Your task to perform on an android device: Open Google Chrome Image 0: 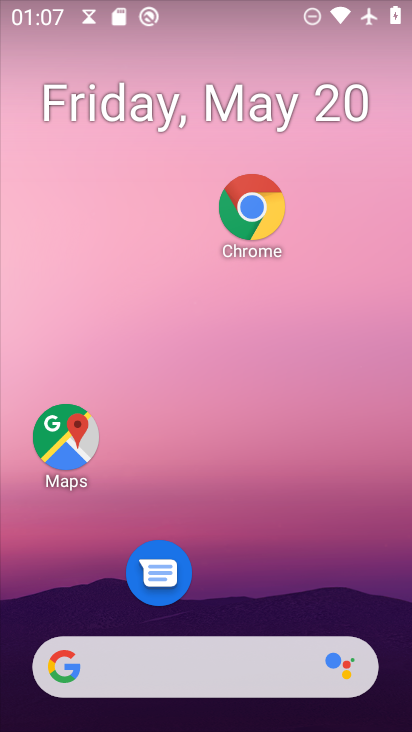
Step 0: drag from (277, 615) to (259, 104)
Your task to perform on an android device: Open Google Chrome Image 1: 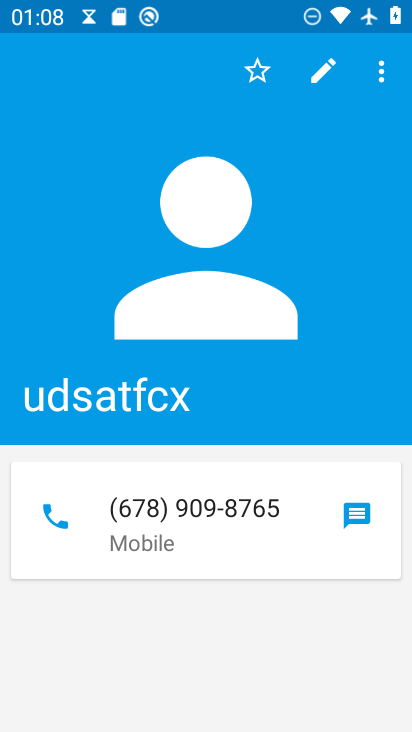
Step 1: press home button
Your task to perform on an android device: Open Google Chrome Image 2: 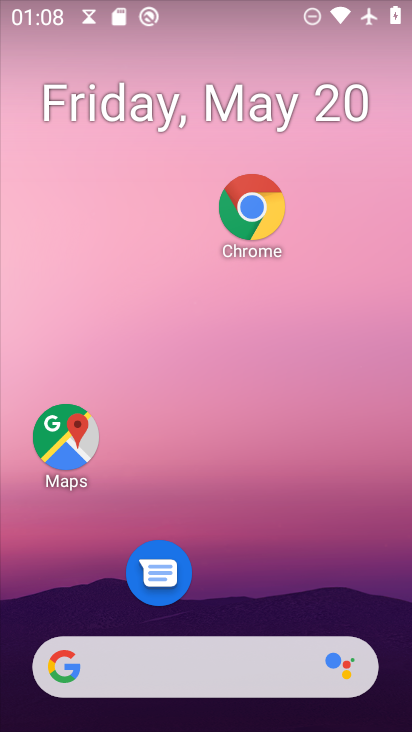
Step 2: click (239, 216)
Your task to perform on an android device: Open Google Chrome Image 3: 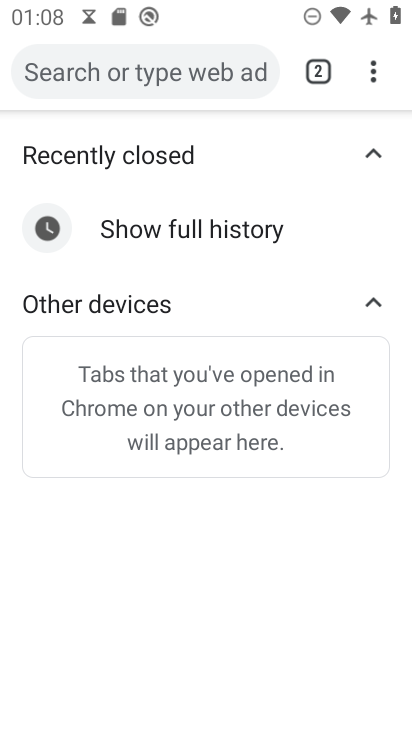
Step 3: task complete